Your task to perform on an android device: Open Google Chrome and click the shortcut for Amazon.com Image 0: 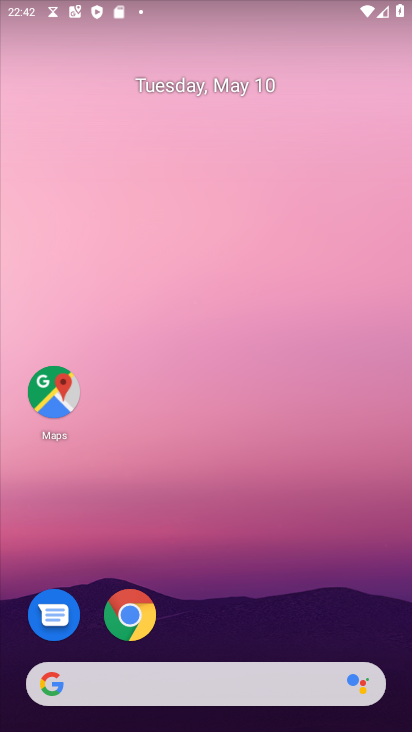
Step 0: click (130, 615)
Your task to perform on an android device: Open Google Chrome and click the shortcut for Amazon.com Image 1: 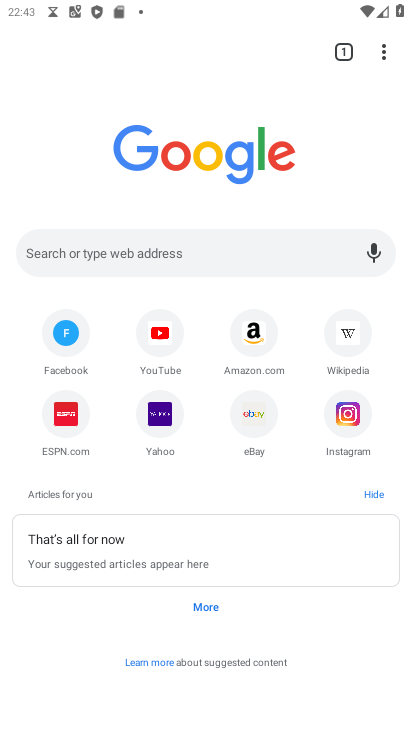
Step 1: click (258, 336)
Your task to perform on an android device: Open Google Chrome and click the shortcut for Amazon.com Image 2: 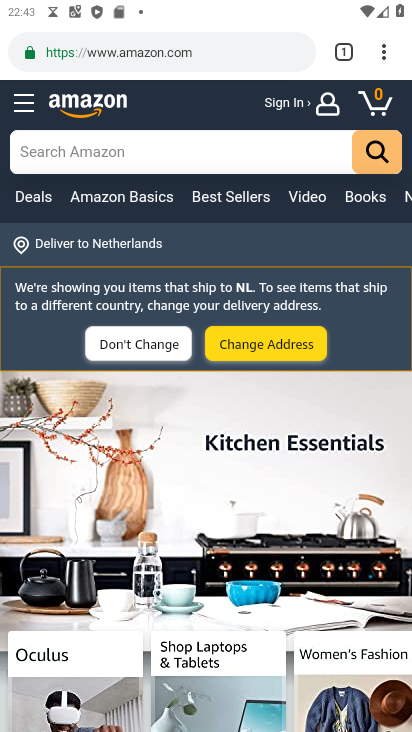
Step 2: click (383, 52)
Your task to perform on an android device: Open Google Chrome and click the shortcut for Amazon.com Image 3: 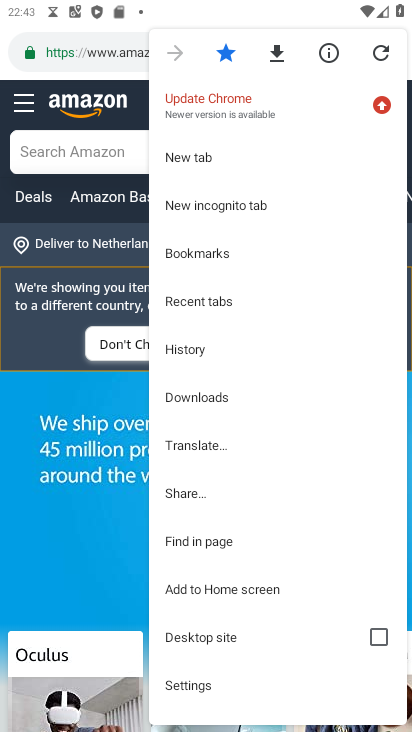
Step 3: click (266, 586)
Your task to perform on an android device: Open Google Chrome and click the shortcut for Amazon.com Image 4: 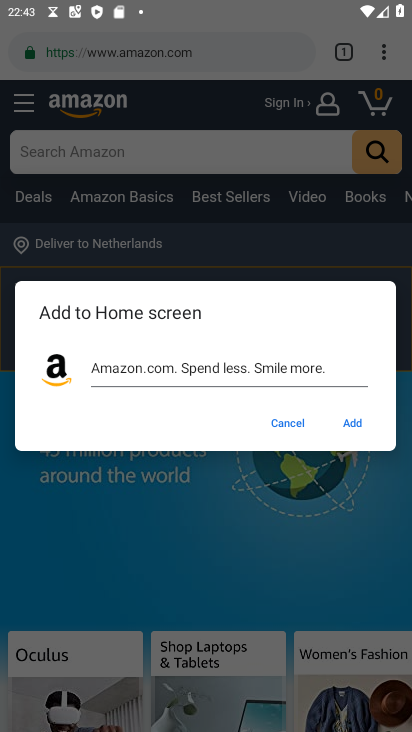
Step 4: click (356, 427)
Your task to perform on an android device: Open Google Chrome and click the shortcut for Amazon.com Image 5: 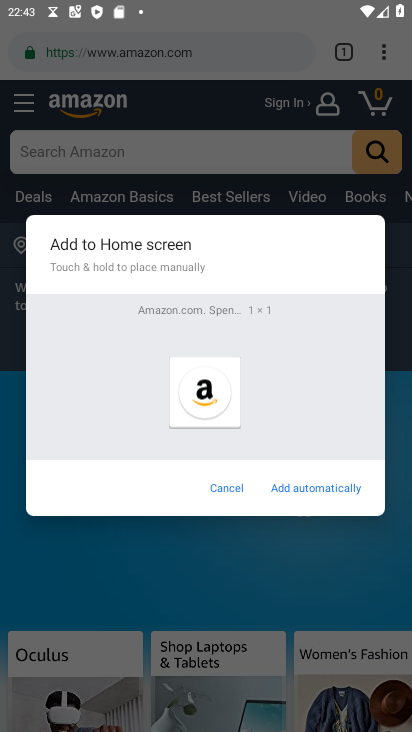
Step 5: click (334, 484)
Your task to perform on an android device: Open Google Chrome and click the shortcut for Amazon.com Image 6: 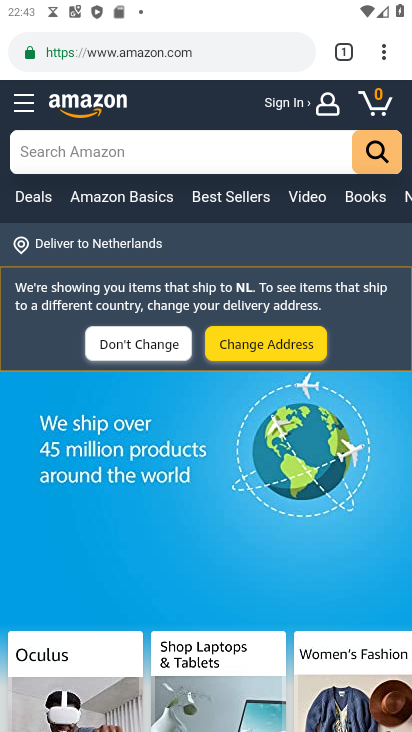
Step 6: task complete